Your task to perform on an android device: Open calendar and show me the fourth week of next month Image 0: 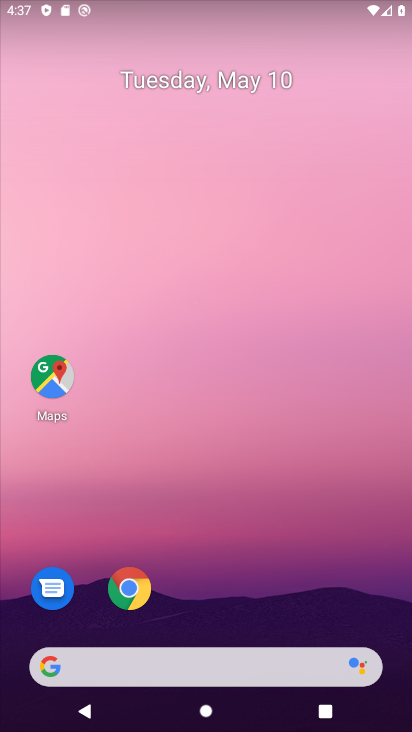
Step 0: drag from (311, 568) to (324, 45)
Your task to perform on an android device: Open calendar and show me the fourth week of next month Image 1: 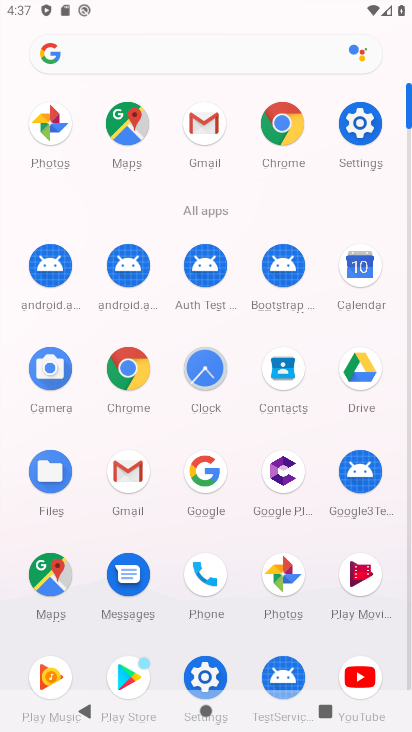
Step 1: click (357, 270)
Your task to perform on an android device: Open calendar and show me the fourth week of next month Image 2: 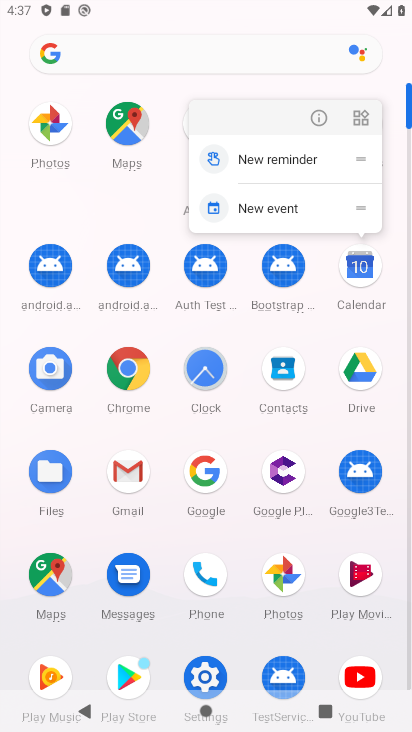
Step 2: click (362, 265)
Your task to perform on an android device: Open calendar and show me the fourth week of next month Image 3: 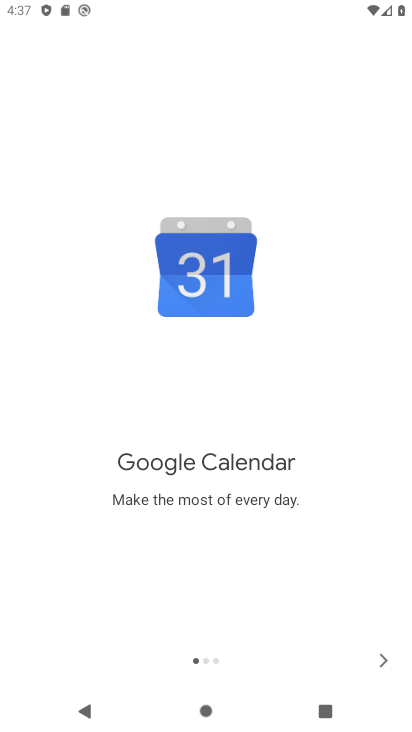
Step 3: click (378, 658)
Your task to perform on an android device: Open calendar and show me the fourth week of next month Image 4: 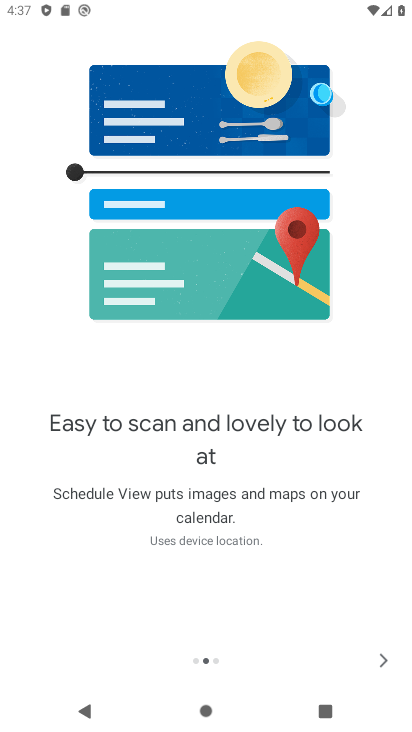
Step 4: click (378, 658)
Your task to perform on an android device: Open calendar and show me the fourth week of next month Image 5: 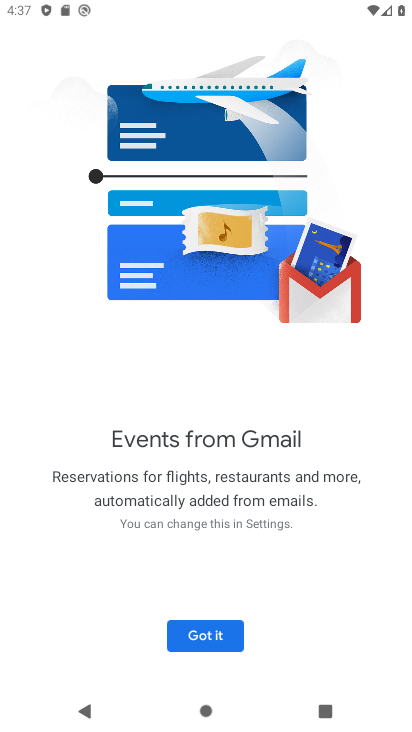
Step 5: click (240, 628)
Your task to perform on an android device: Open calendar and show me the fourth week of next month Image 6: 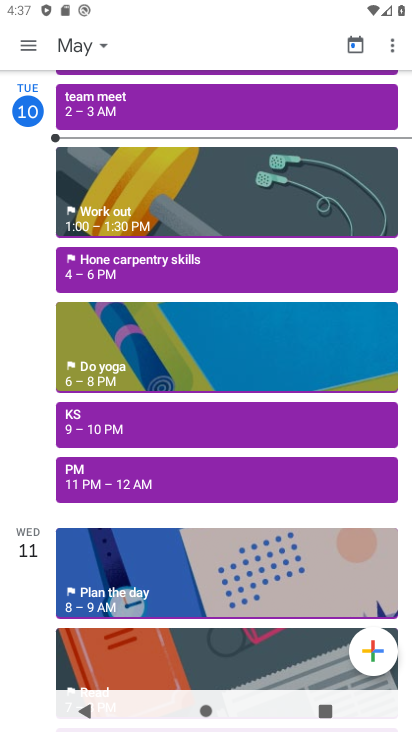
Step 6: click (26, 43)
Your task to perform on an android device: Open calendar and show me the fourth week of next month Image 7: 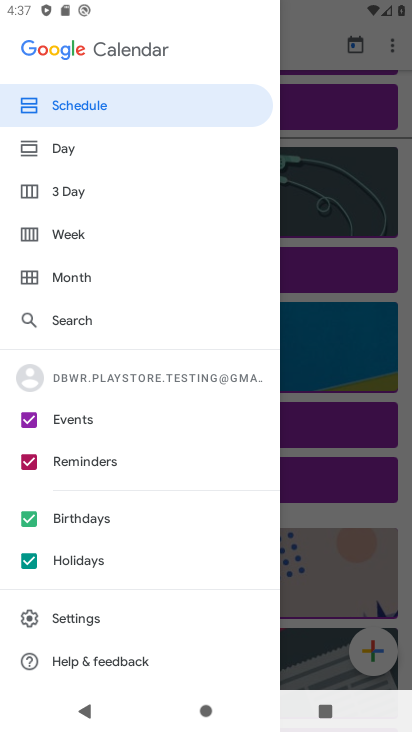
Step 7: click (63, 279)
Your task to perform on an android device: Open calendar and show me the fourth week of next month Image 8: 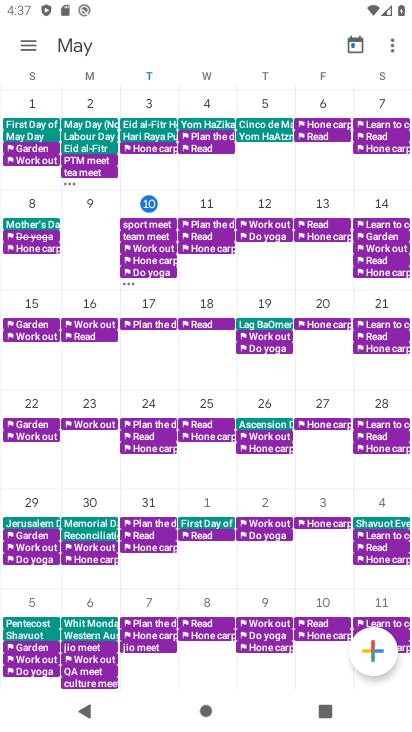
Step 8: drag from (369, 385) to (0, 518)
Your task to perform on an android device: Open calendar and show me the fourth week of next month Image 9: 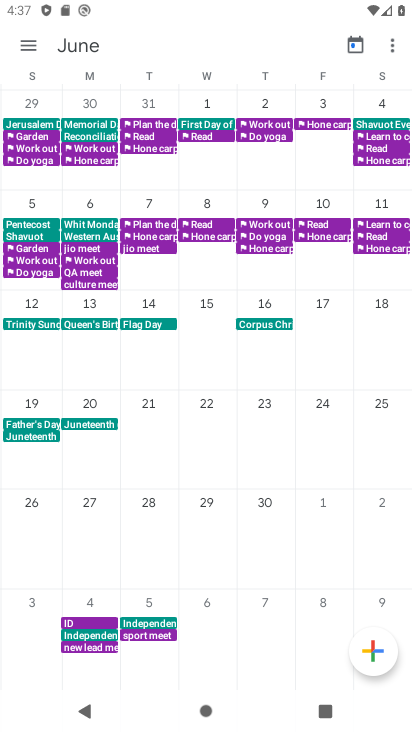
Step 9: click (34, 499)
Your task to perform on an android device: Open calendar and show me the fourth week of next month Image 10: 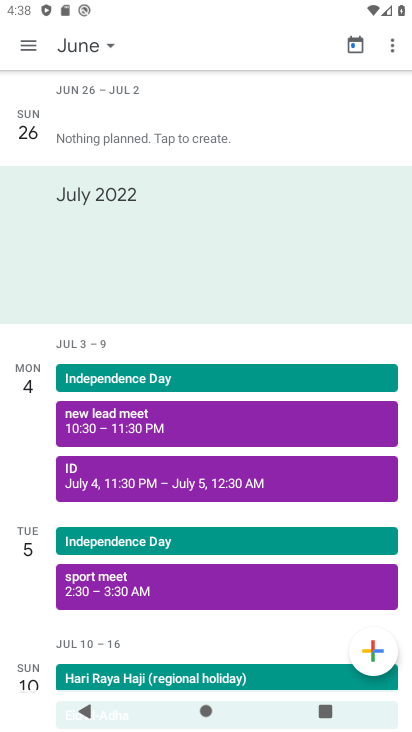
Step 10: click (27, 39)
Your task to perform on an android device: Open calendar and show me the fourth week of next month Image 11: 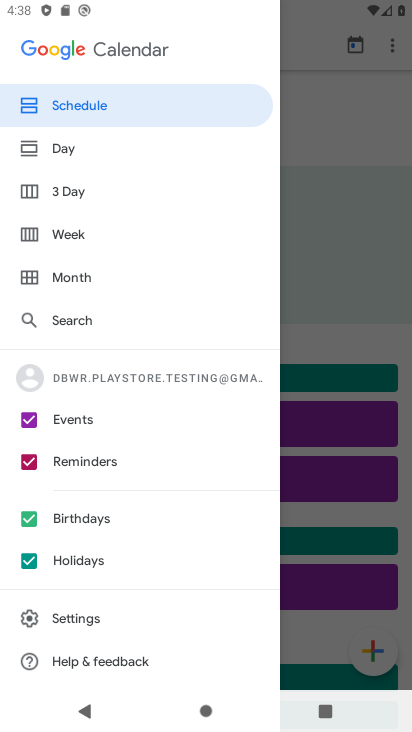
Step 11: click (44, 226)
Your task to perform on an android device: Open calendar and show me the fourth week of next month Image 12: 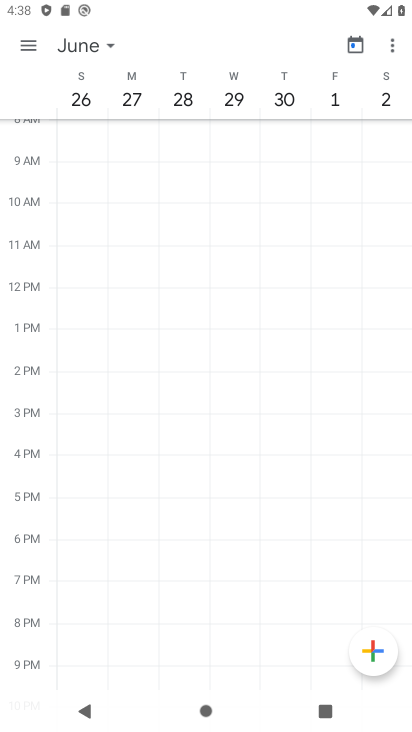
Step 12: task complete